Your task to perform on an android device: toggle location history Image 0: 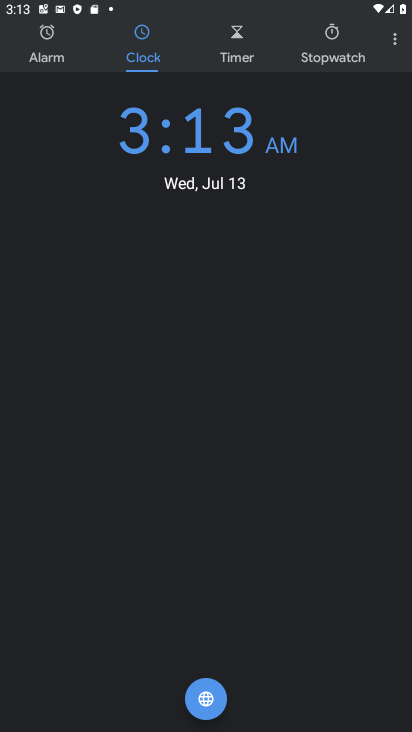
Step 0: press home button
Your task to perform on an android device: toggle location history Image 1: 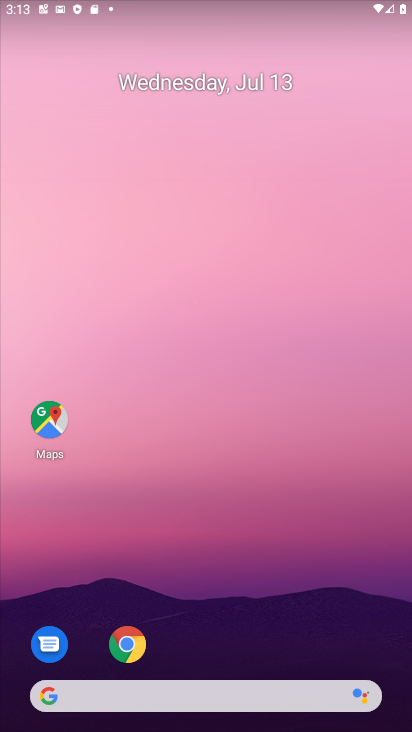
Step 1: drag from (24, 711) to (373, 9)
Your task to perform on an android device: toggle location history Image 2: 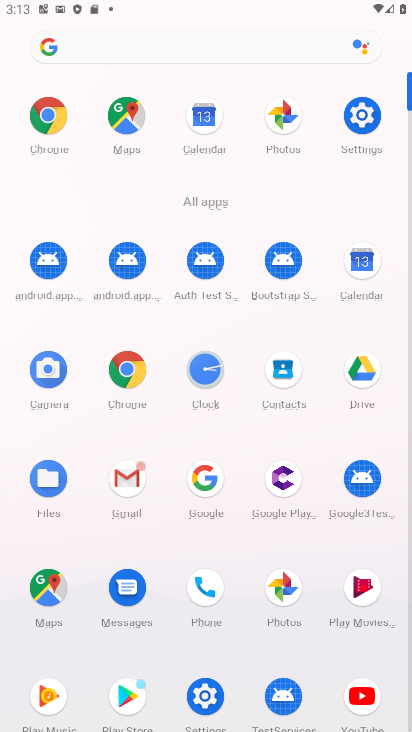
Step 2: click (204, 688)
Your task to perform on an android device: toggle location history Image 3: 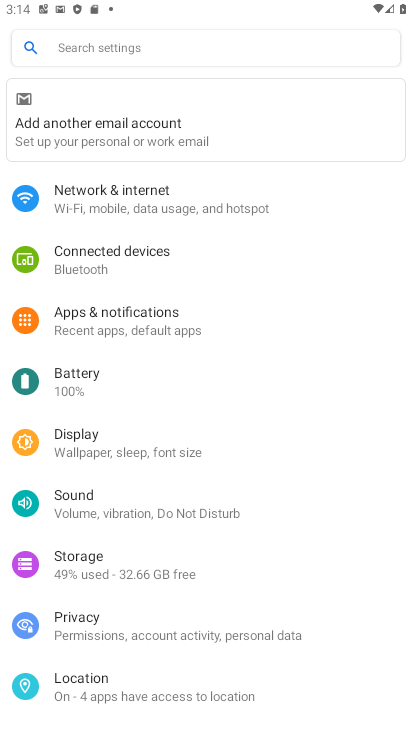
Step 3: click (79, 672)
Your task to perform on an android device: toggle location history Image 4: 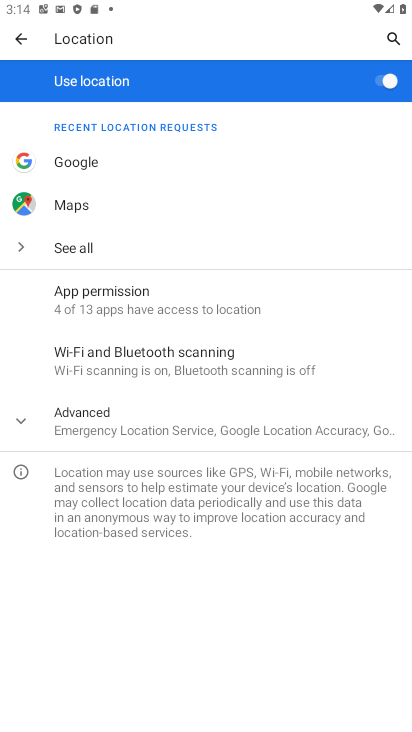
Step 4: click (120, 426)
Your task to perform on an android device: toggle location history Image 5: 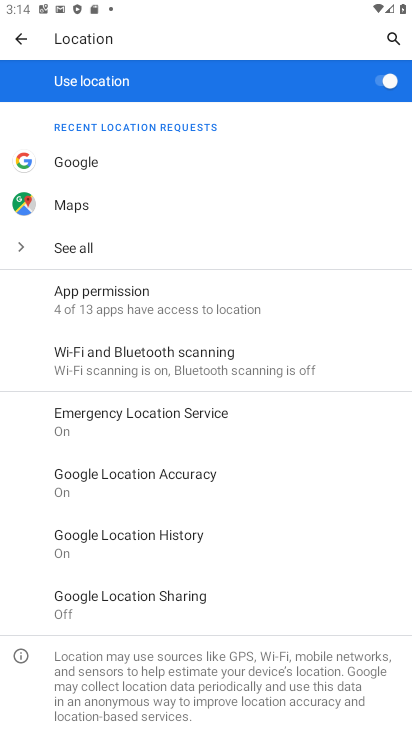
Step 5: task complete